Your task to perform on an android device: turn on wifi Image 0: 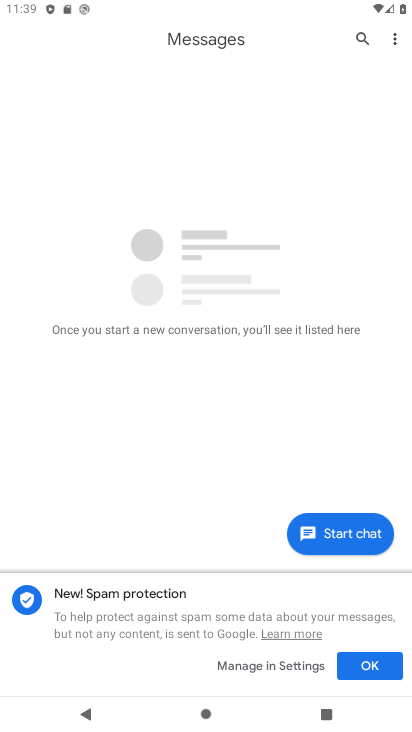
Step 0: press home button
Your task to perform on an android device: turn on wifi Image 1: 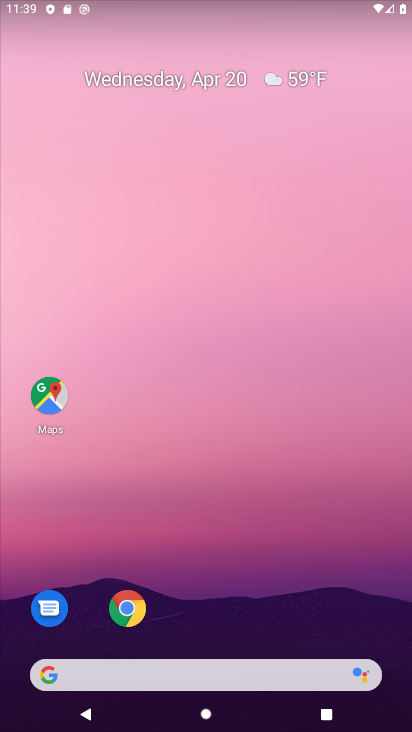
Step 1: drag from (256, 590) to (241, 53)
Your task to perform on an android device: turn on wifi Image 2: 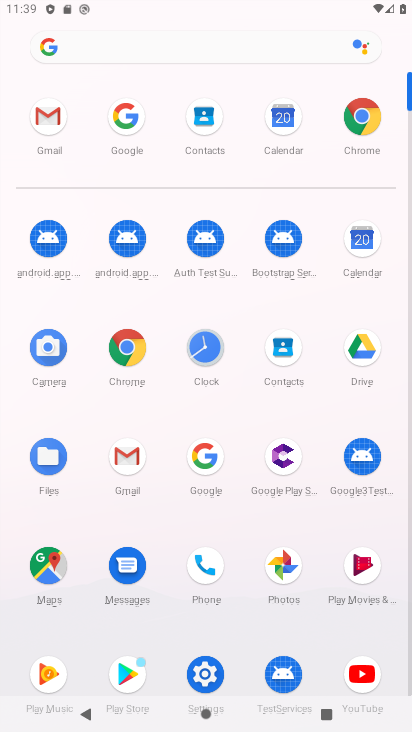
Step 2: click (203, 675)
Your task to perform on an android device: turn on wifi Image 3: 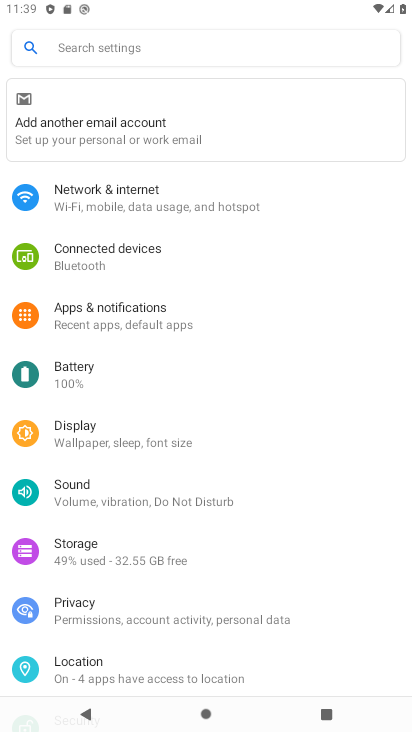
Step 3: click (180, 200)
Your task to perform on an android device: turn on wifi Image 4: 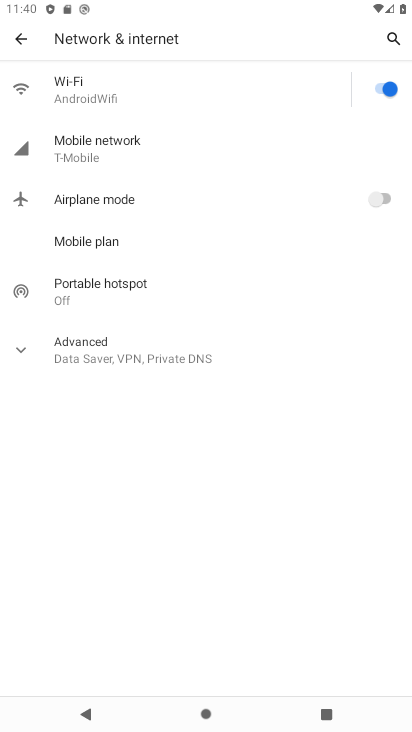
Step 4: task complete